Your task to perform on an android device: all mails in gmail Image 0: 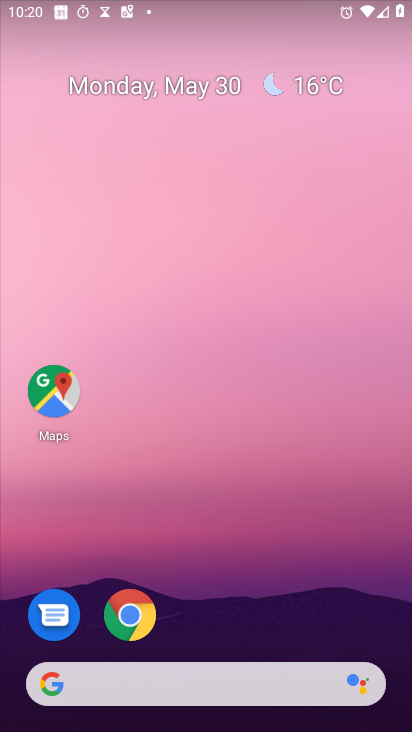
Step 0: drag from (241, 451) to (237, 24)
Your task to perform on an android device: all mails in gmail Image 1: 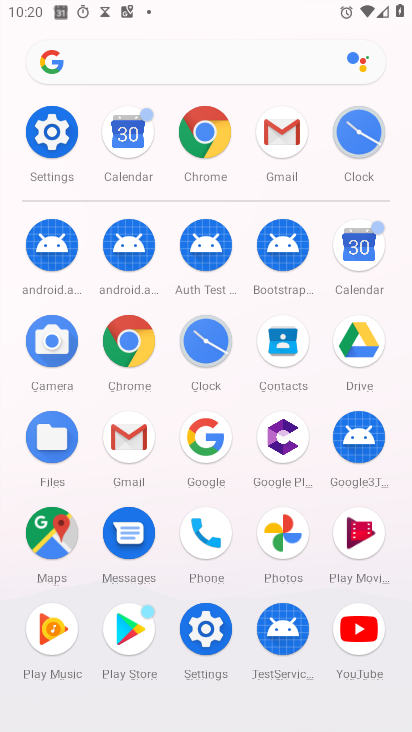
Step 1: click (295, 142)
Your task to perform on an android device: all mails in gmail Image 2: 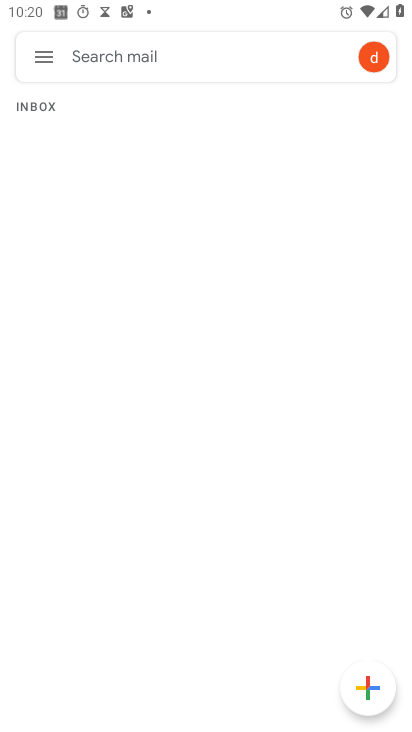
Step 2: click (38, 62)
Your task to perform on an android device: all mails in gmail Image 3: 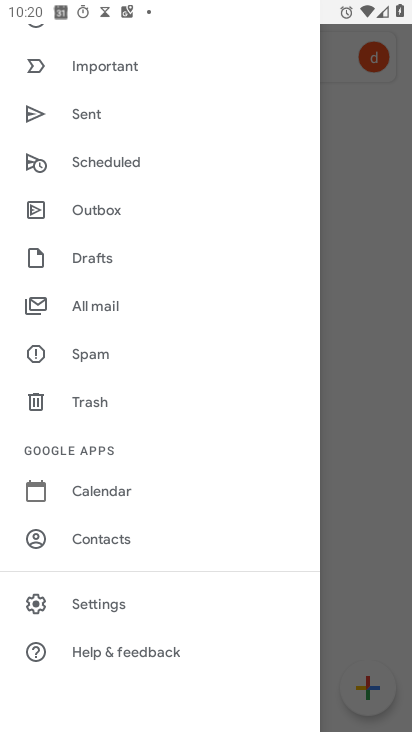
Step 3: click (98, 305)
Your task to perform on an android device: all mails in gmail Image 4: 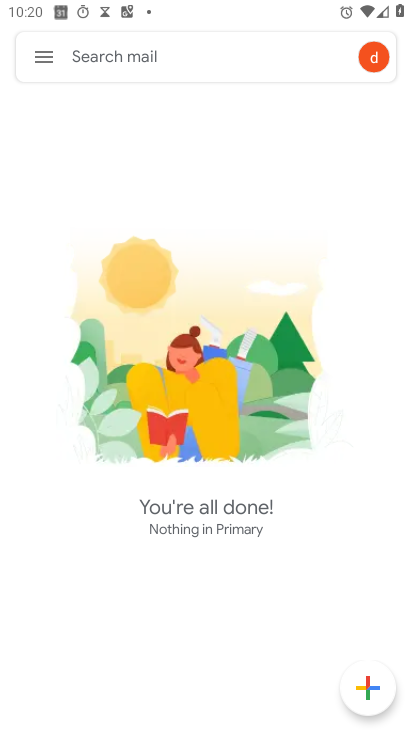
Step 4: task complete